Your task to perform on an android device: Search for seafood restaurants on Google Maps Image 0: 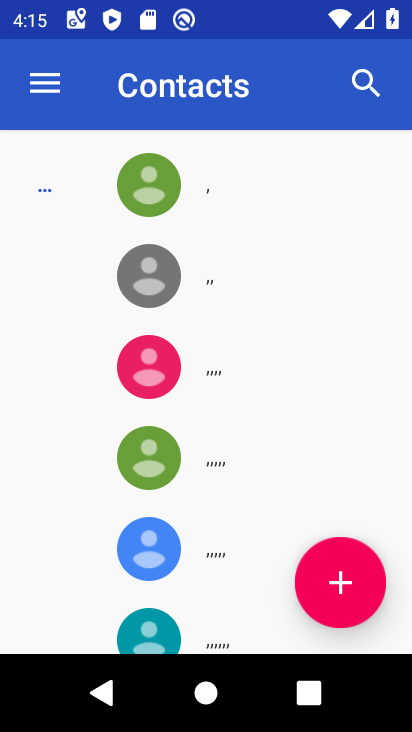
Step 0: press home button
Your task to perform on an android device: Search for seafood restaurants on Google Maps Image 1: 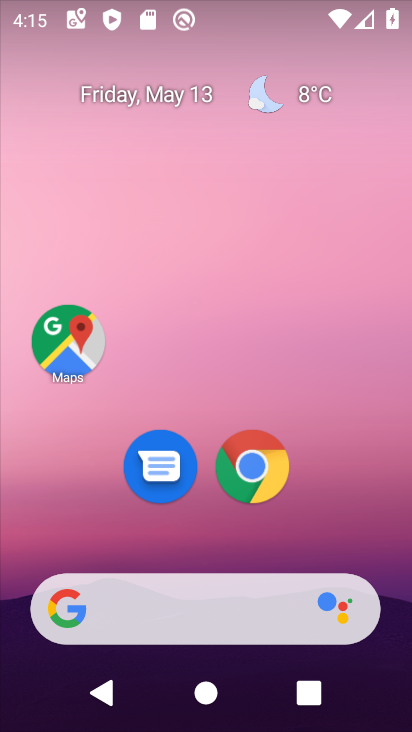
Step 1: click (68, 340)
Your task to perform on an android device: Search for seafood restaurants on Google Maps Image 2: 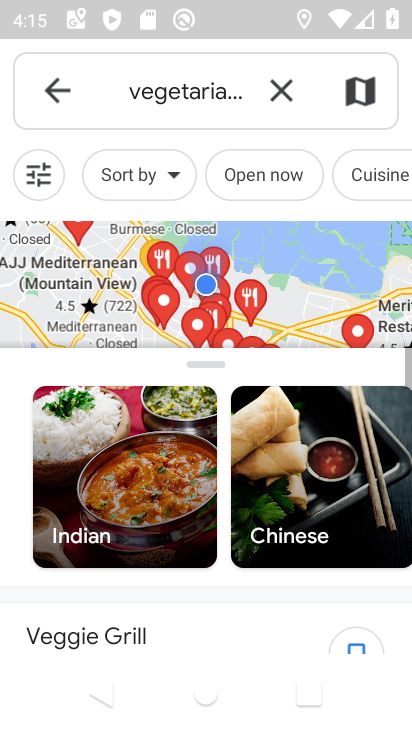
Step 2: click (279, 81)
Your task to perform on an android device: Search for seafood restaurants on Google Maps Image 3: 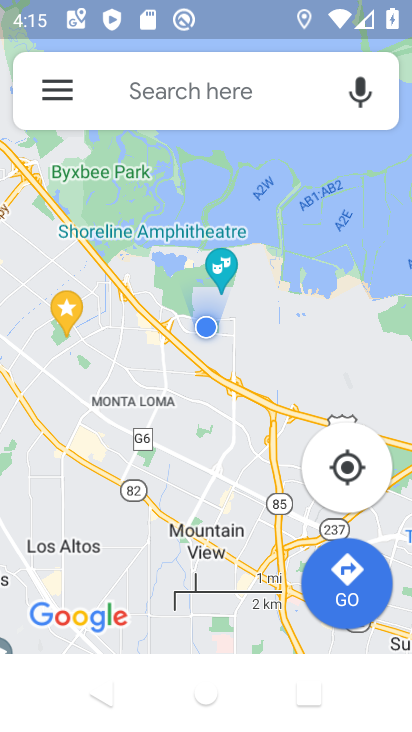
Step 3: click (142, 89)
Your task to perform on an android device: Search for seafood restaurants on Google Maps Image 4: 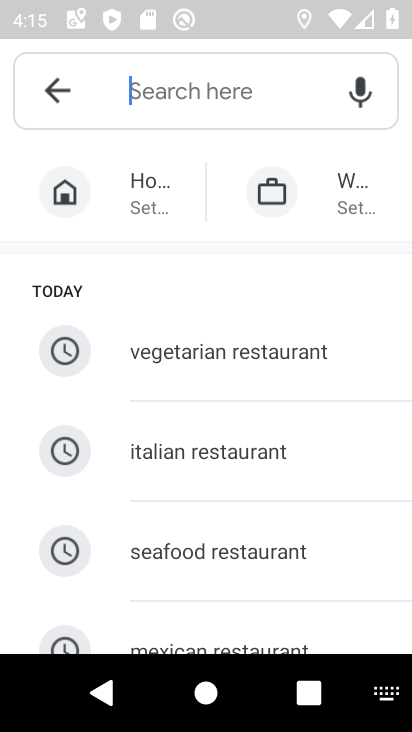
Step 4: type "seafood restaurants"
Your task to perform on an android device: Search for seafood restaurants on Google Maps Image 5: 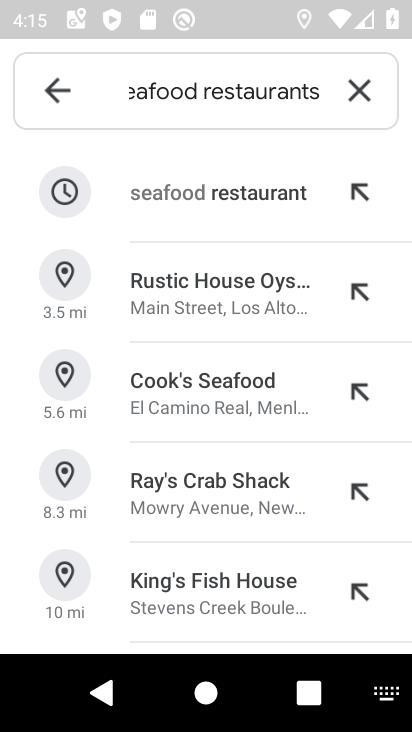
Step 5: click (230, 195)
Your task to perform on an android device: Search for seafood restaurants on Google Maps Image 6: 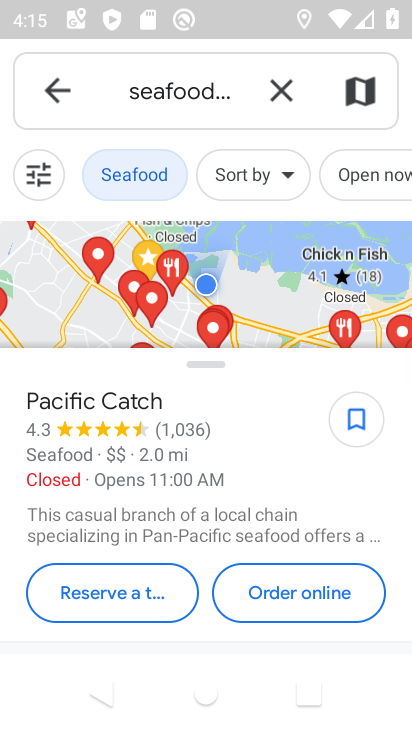
Step 6: task complete